Your task to perform on an android device: open app "Speedtest by Ookla" (install if not already installed) Image 0: 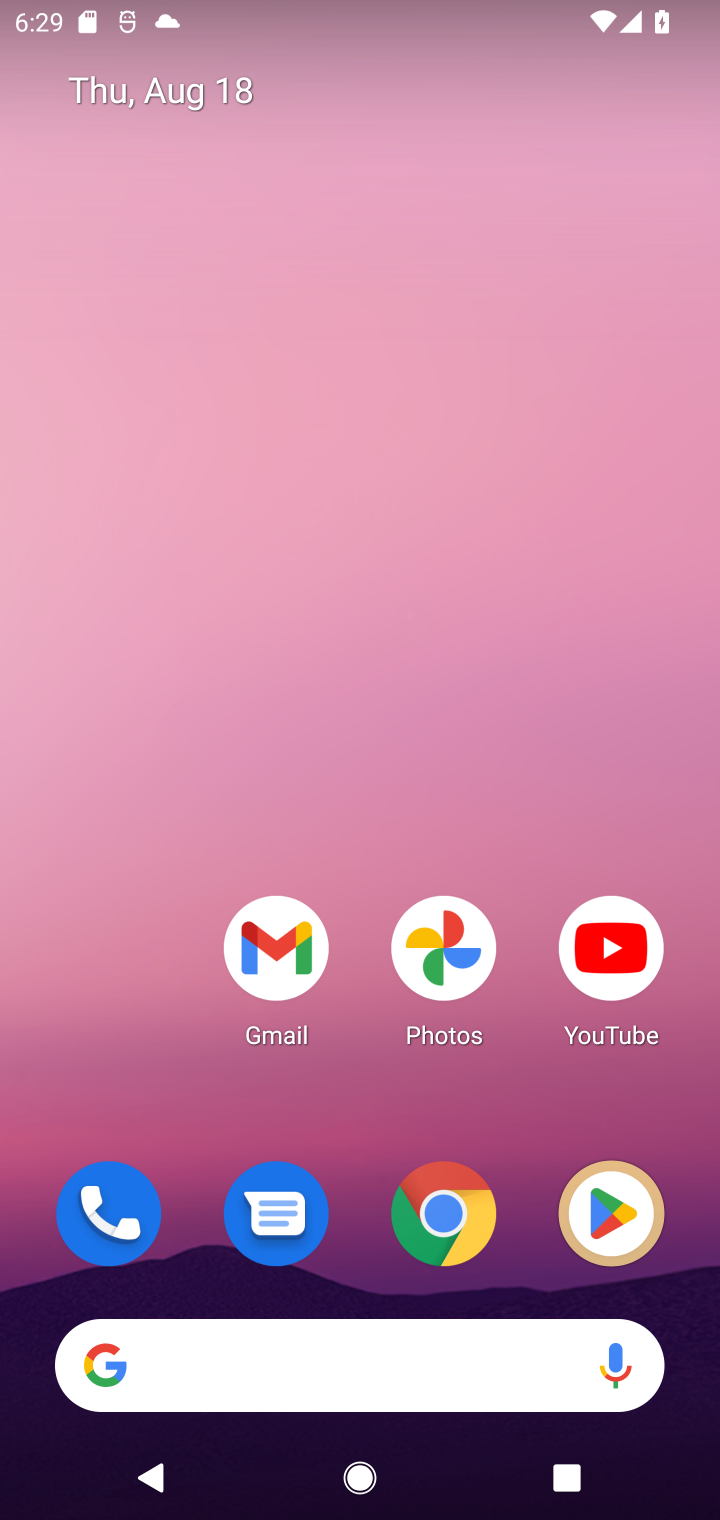
Step 0: click (597, 1206)
Your task to perform on an android device: open app "Speedtest by Ookla" (install if not already installed) Image 1: 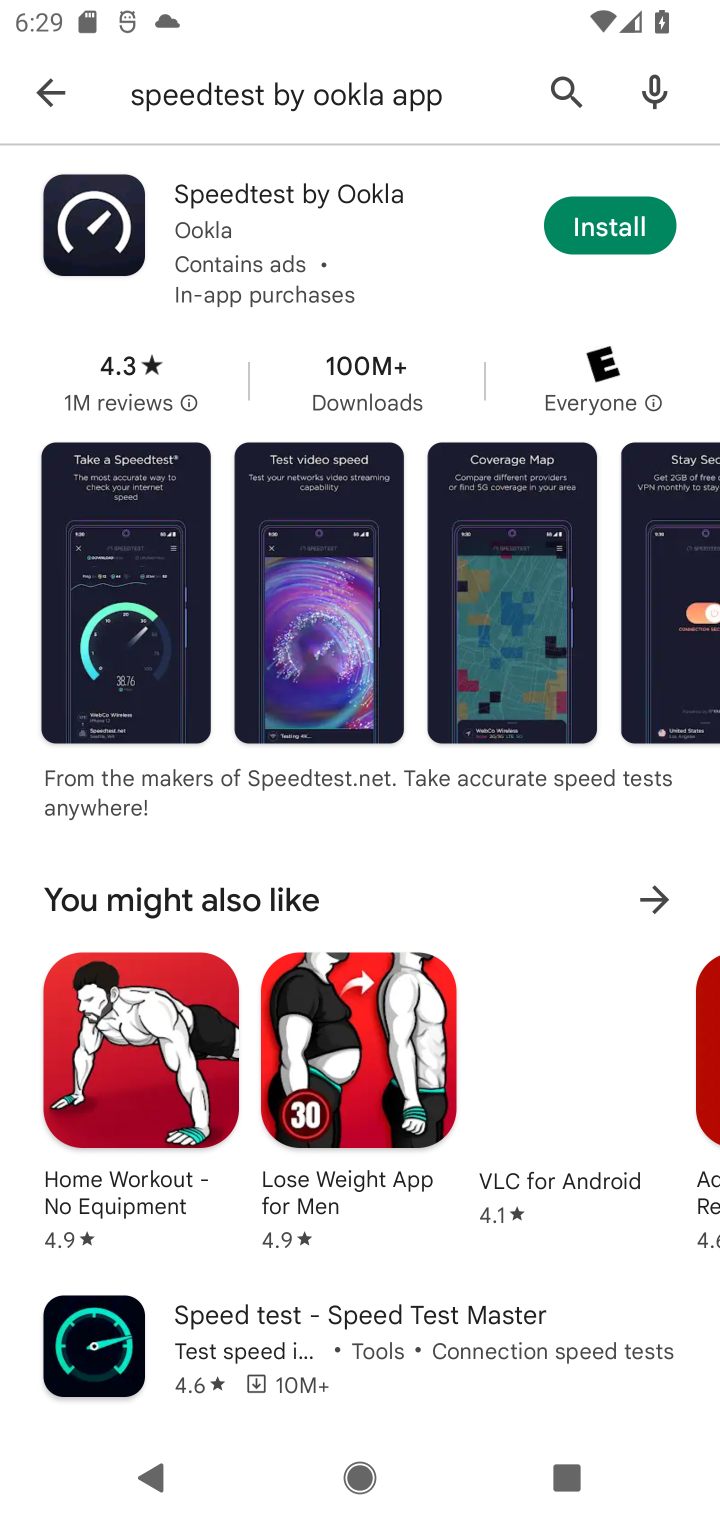
Step 1: click (585, 230)
Your task to perform on an android device: open app "Speedtest by Ookla" (install if not already installed) Image 2: 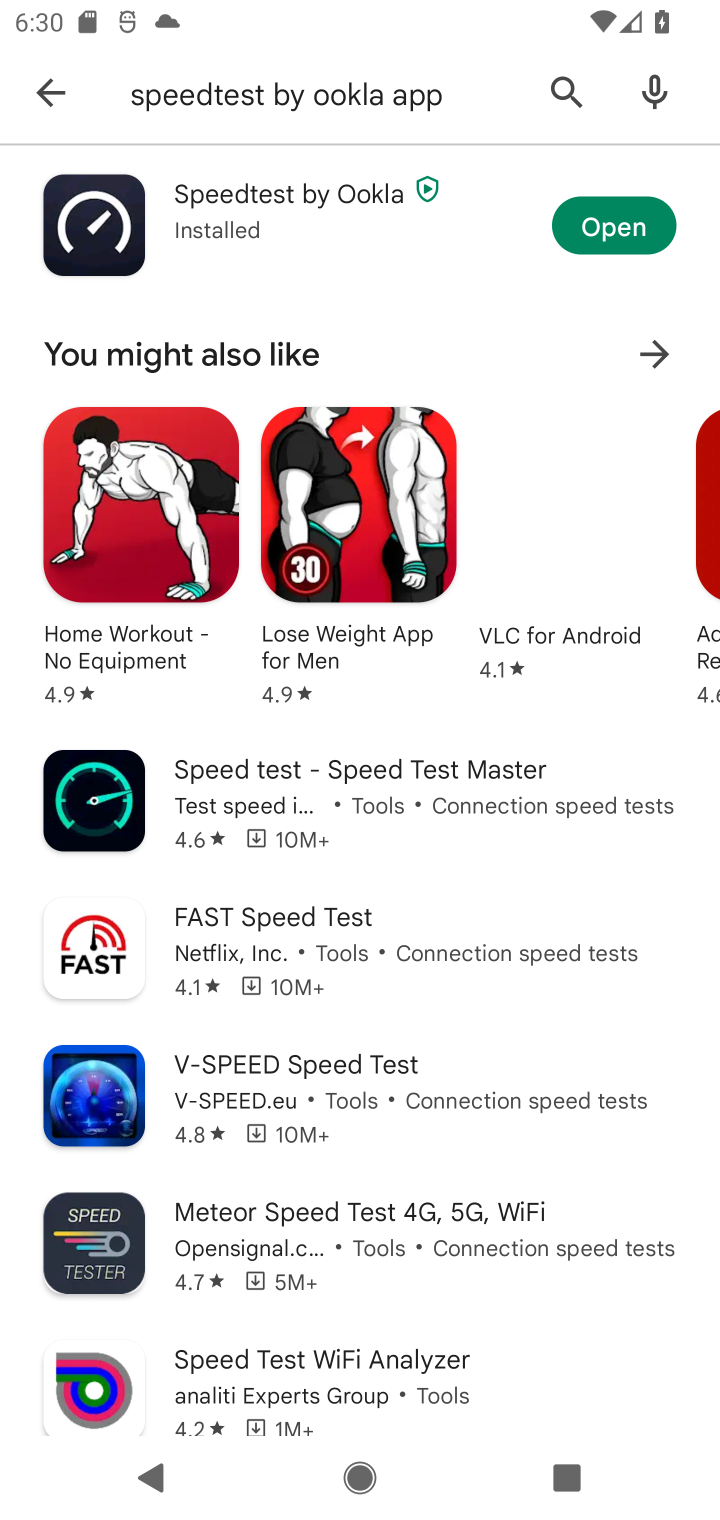
Step 2: click (585, 228)
Your task to perform on an android device: open app "Speedtest by Ookla" (install if not already installed) Image 3: 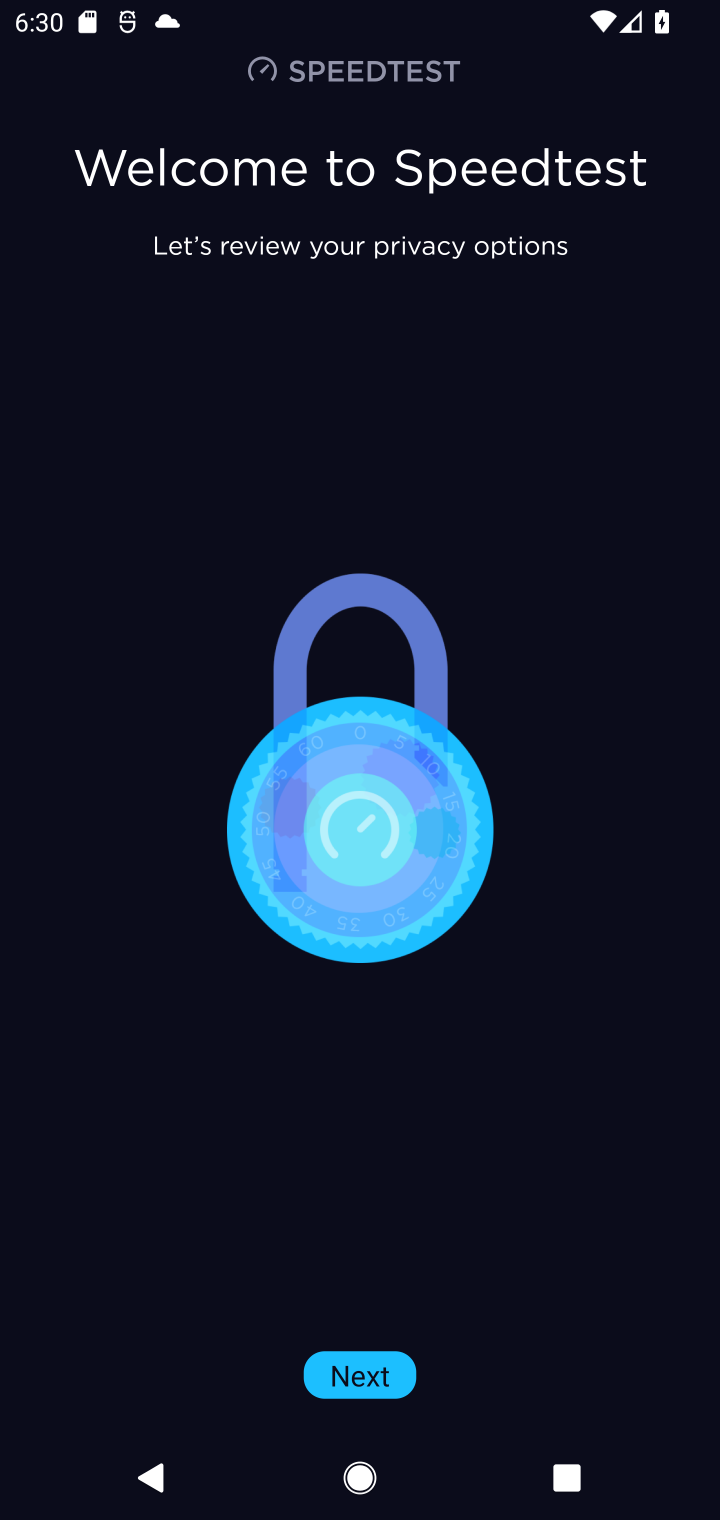
Step 3: click (359, 1369)
Your task to perform on an android device: open app "Speedtest by Ookla" (install if not already installed) Image 4: 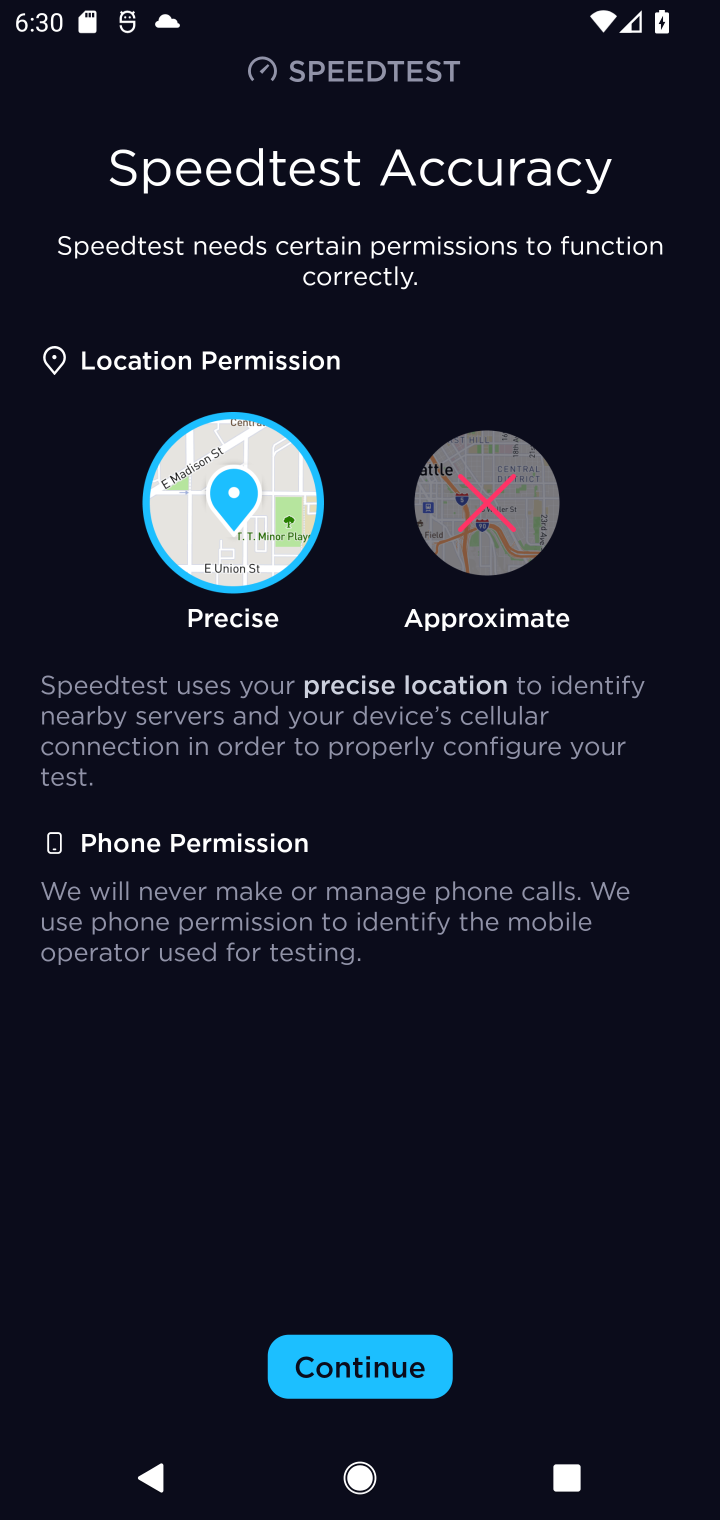
Step 4: click (344, 1361)
Your task to perform on an android device: open app "Speedtest by Ookla" (install if not already installed) Image 5: 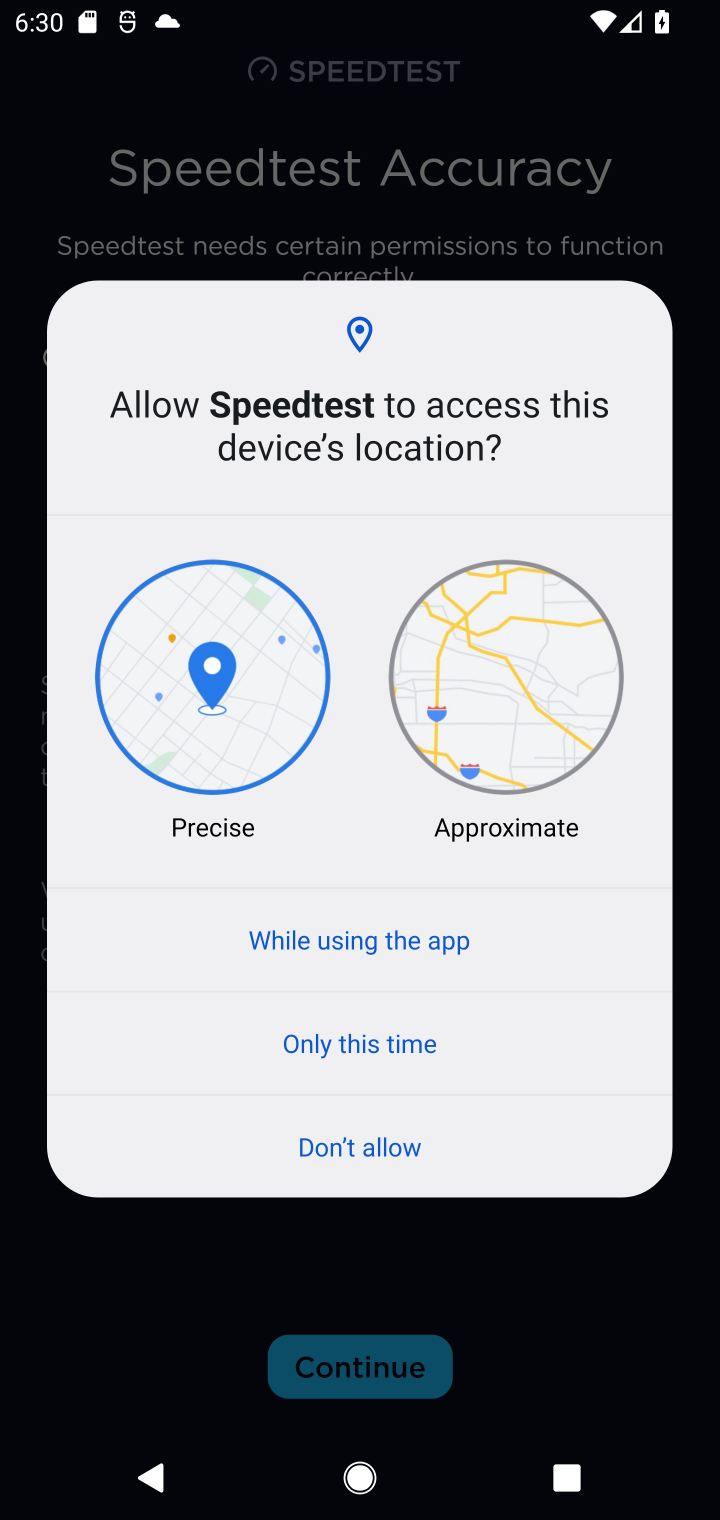
Step 5: click (351, 932)
Your task to perform on an android device: open app "Speedtest by Ookla" (install if not already installed) Image 6: 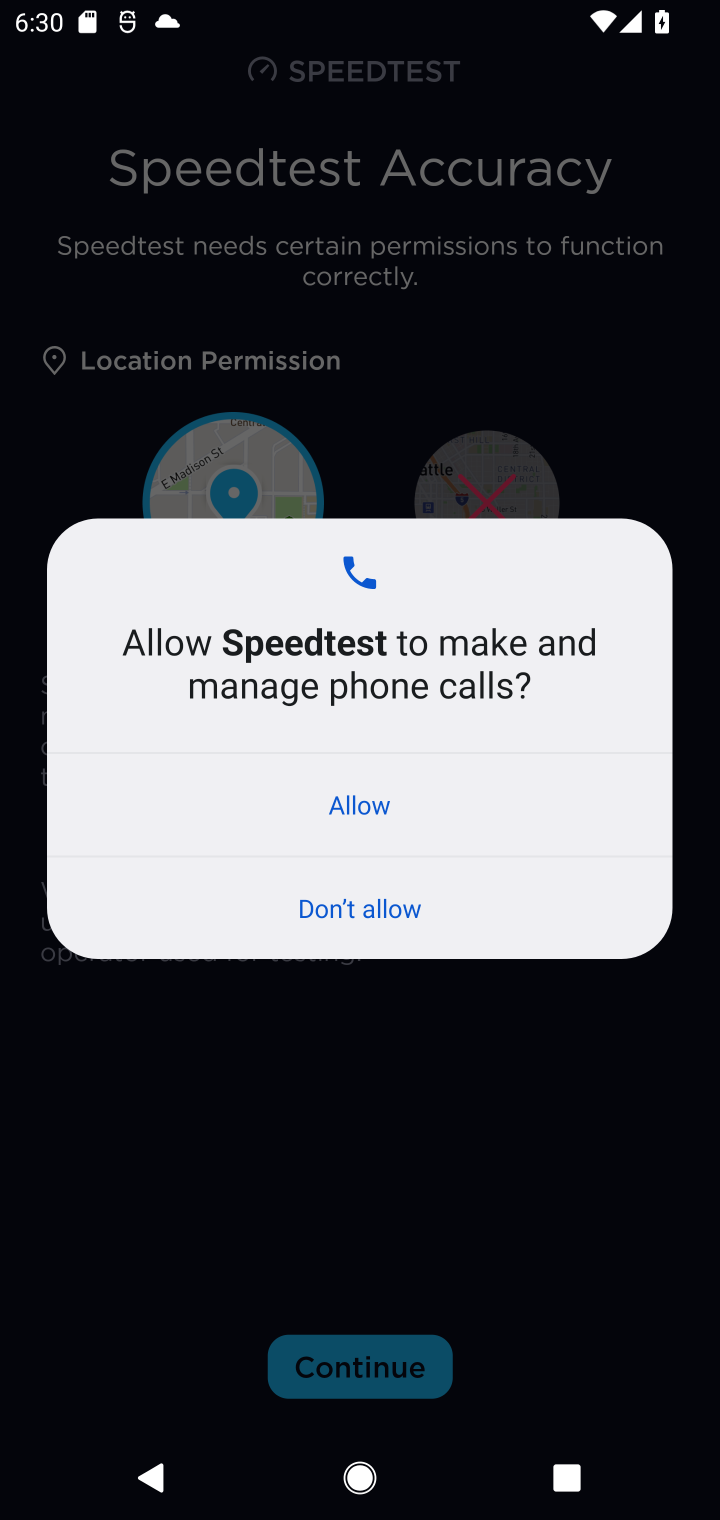
Step 6: click (366, 799)
Your task to perform on an android device: open app "Speedtest by Ookla" (install if not already installed) Image 7: 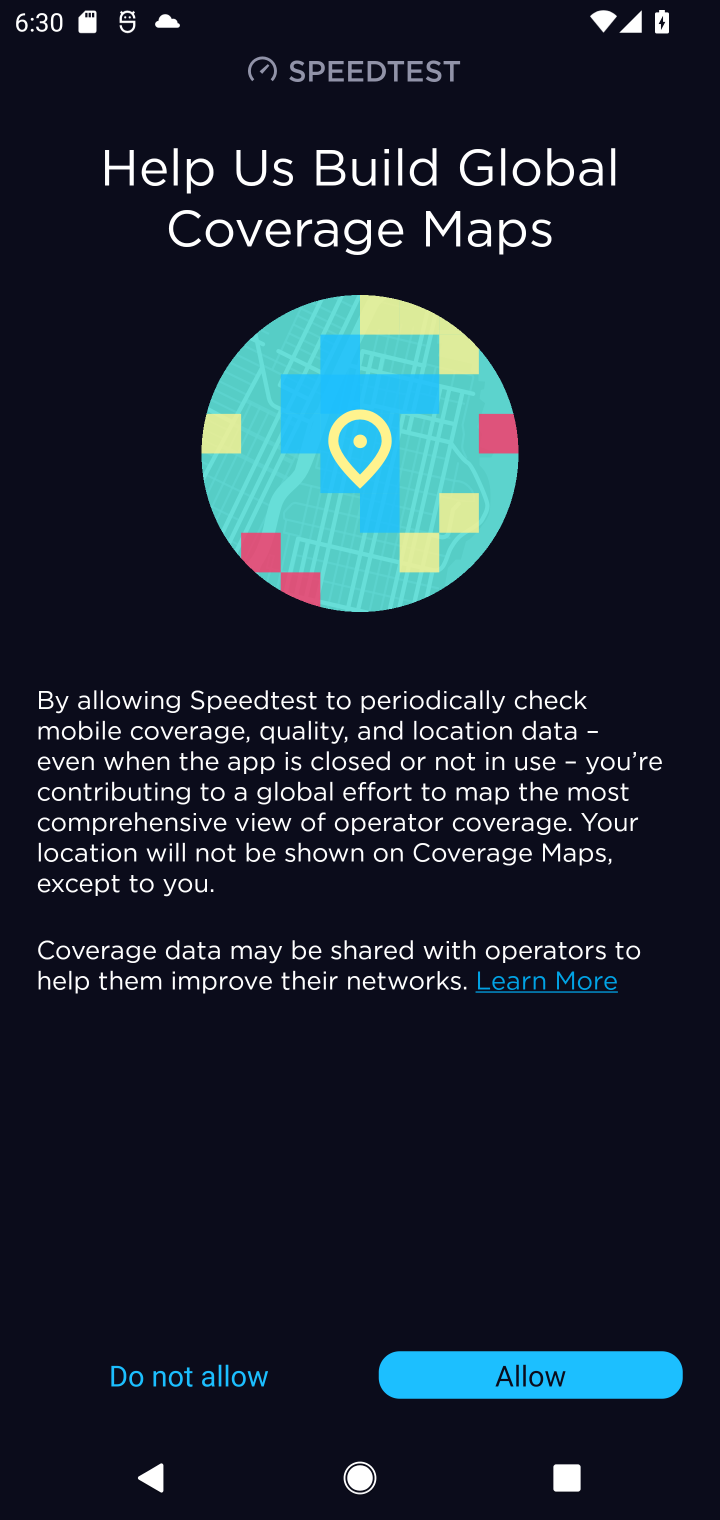
Step 7: click (513, 1370)
Your task to perform on an android device: open app "Speedtest by Ookla" (install if not already installed) Image 8: 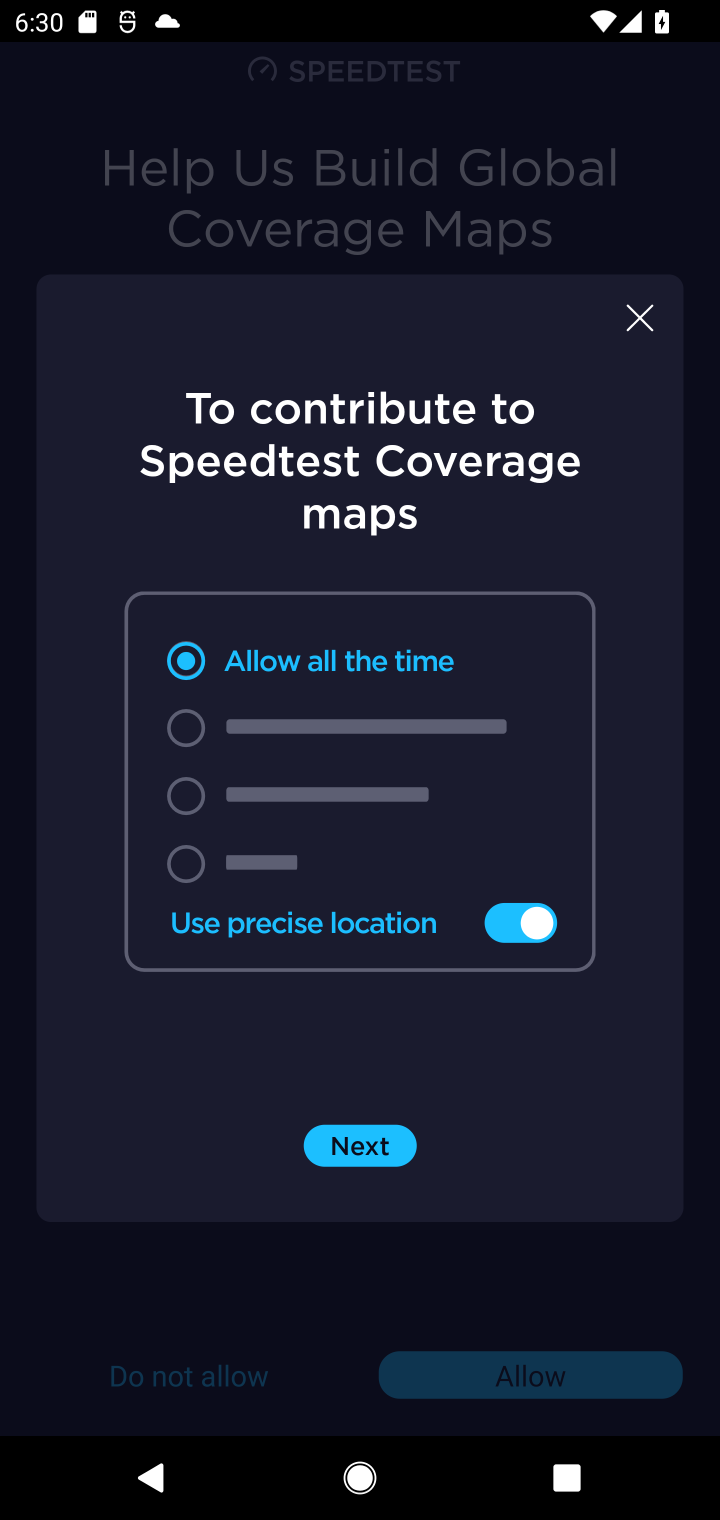
Step 8: click (377, 1164)
Your task to perform on an android device: open app "Speedtest by Ookla" (install if not already installed) Image 9: 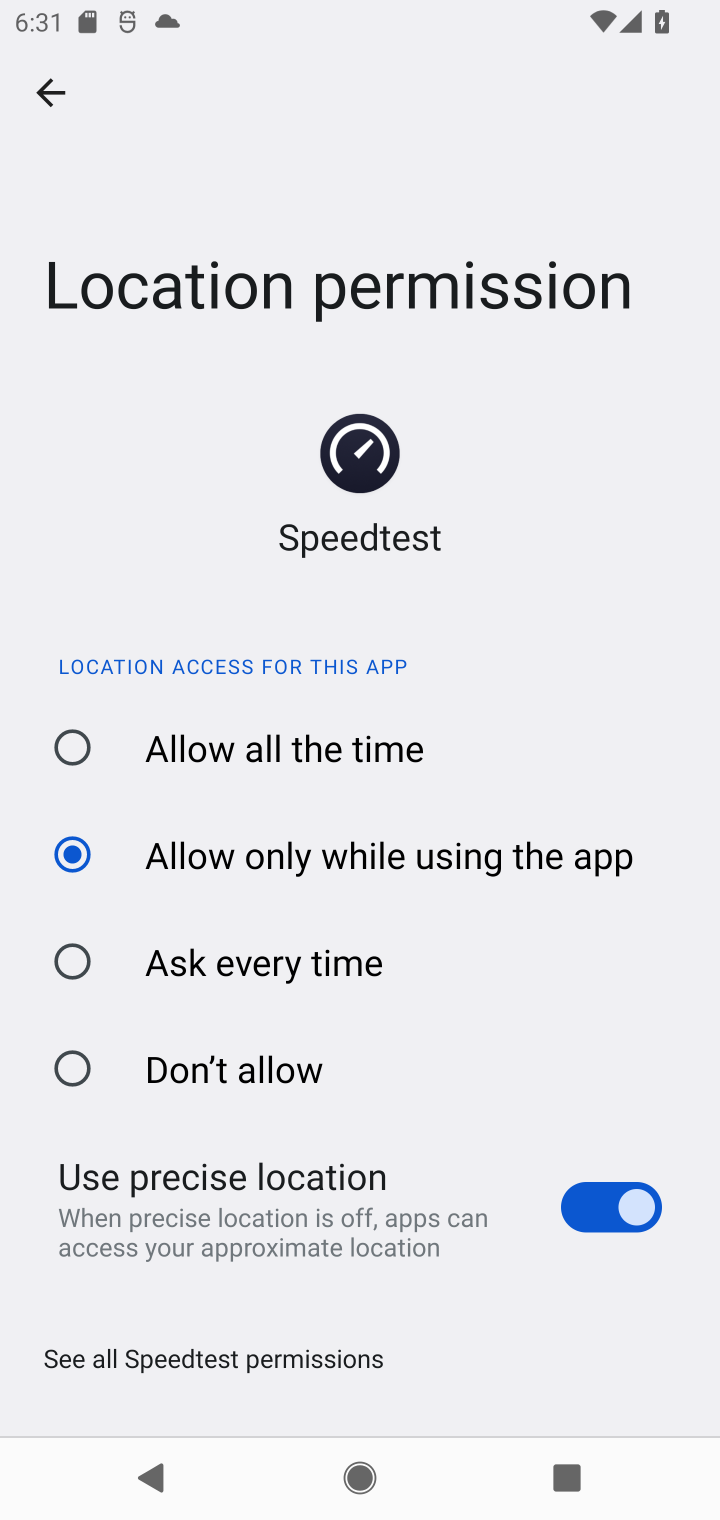
Step 9: click (541, 1367)
Your task to perform on an android device: open app "Speedtest by Ookla" (install if not already installed) Image 10: 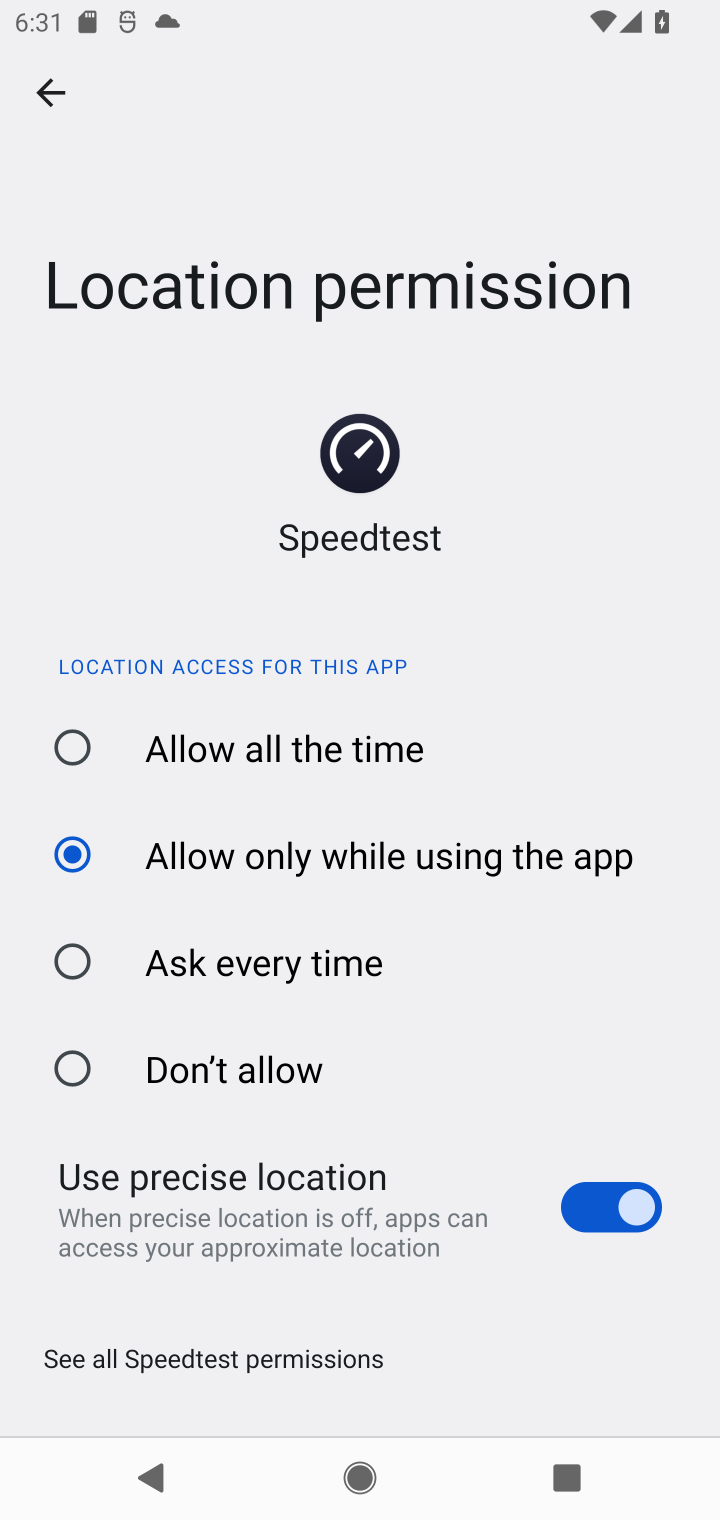
Step 10: click (71, 740)
Your task to perform on an android device: open app "Speedtest by Ookla" (install if not already installed) Image 11: 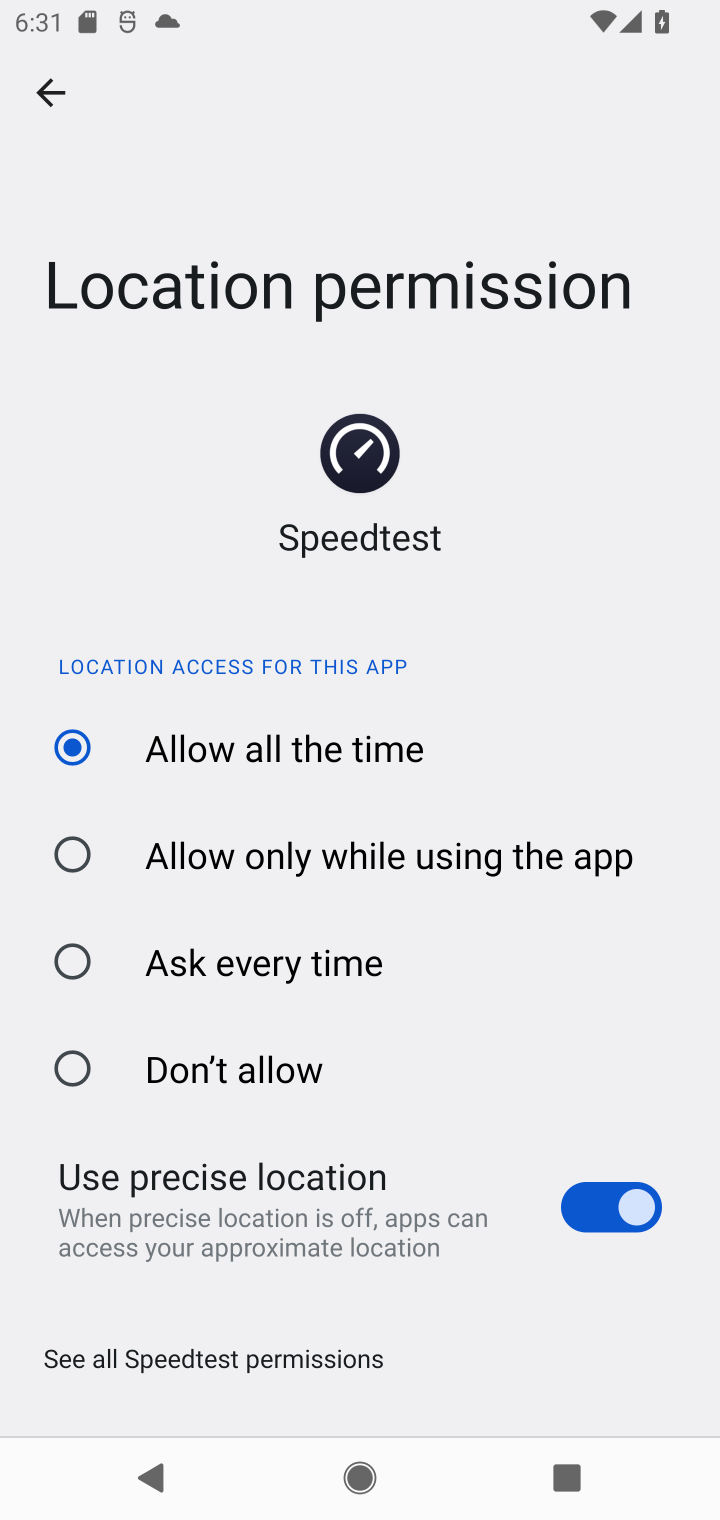
Step 11: task complete